Your task to perform on an android device: delete the emails in spam in the gmail app Image 0: 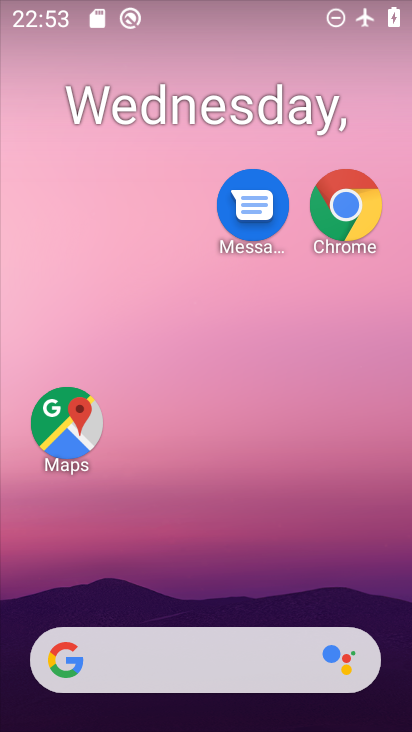
Step 0: drag from (257, 587) to (273, 201)
Your task to perform on an android device: delete the emails in spam in the gmail app Image 1: 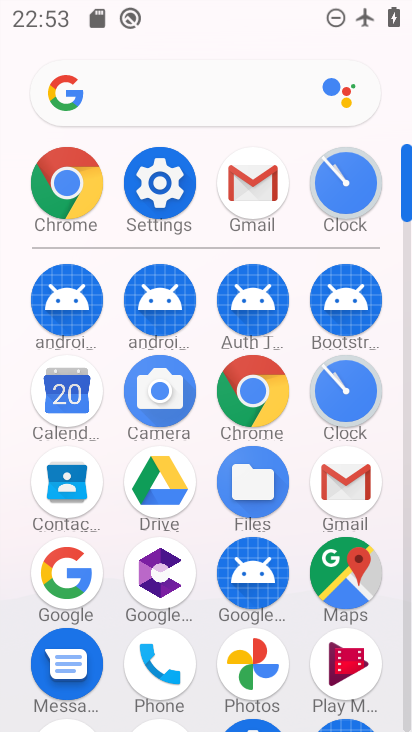
Step 1: click (335, 461)
Your task to perform on an android device: delete the emails in spam in the gmail app Image 2: 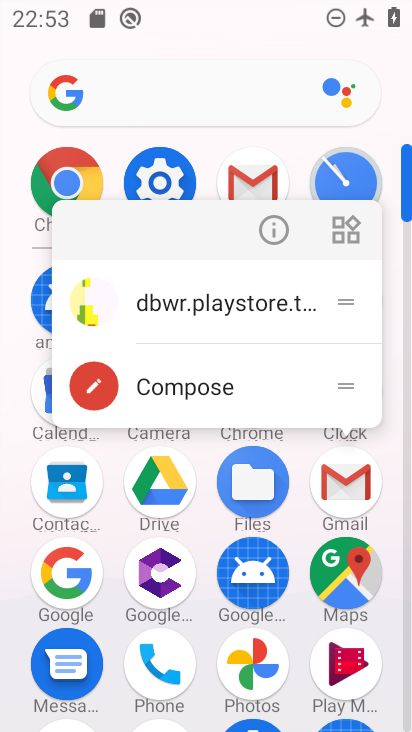
Step 2: click (269, 239)
Your task to perform on an android device: delete the emails in spam in the gmail app Image 3: 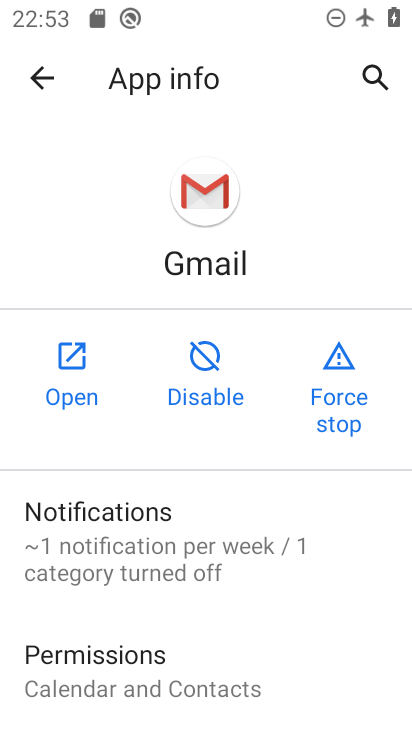
Step 3: click (68, 357)
Your task to perform on an android device: delete the emails in spam in the gmail app Image 4: 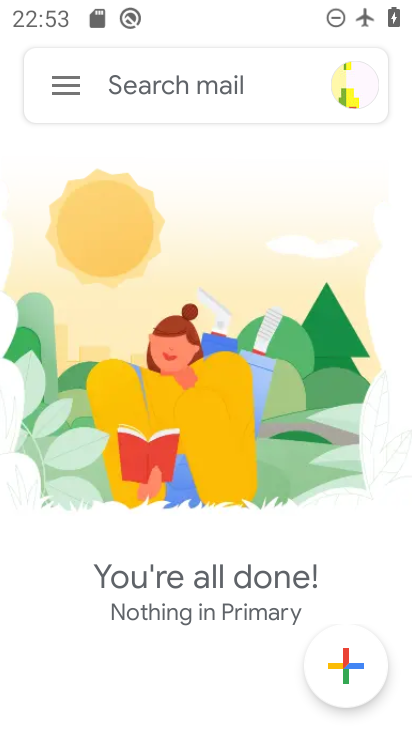
Step 4: drag from (224, 549) to (226, 401)
Your task to perform on an android device: delete the emails in spam in the gmail app Image 5: 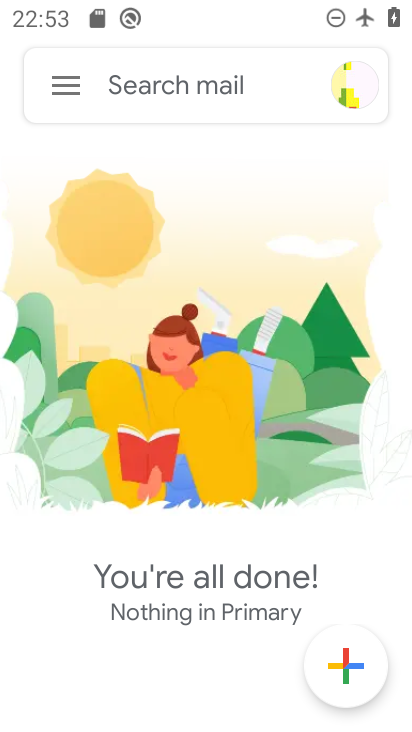
Step 5: click (42, 88)
Your task to perform on an android device: delete the emails in spam in the gmail app Image 6: 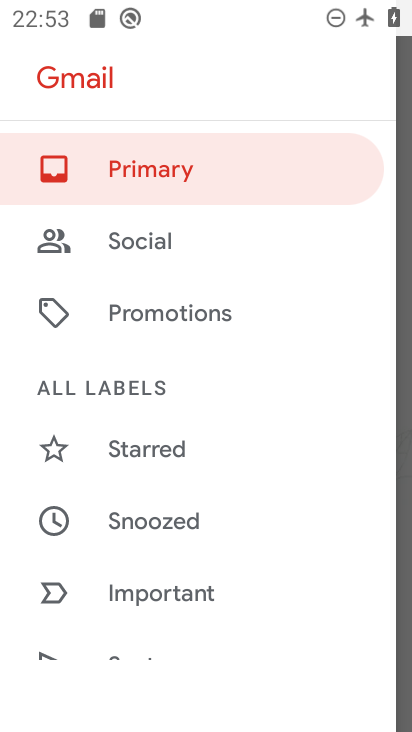
Step 6: drag from (175, 481) to (204, 296)
Your task to perform on an android device: delete the emails in spam in the gmail app Image 7: 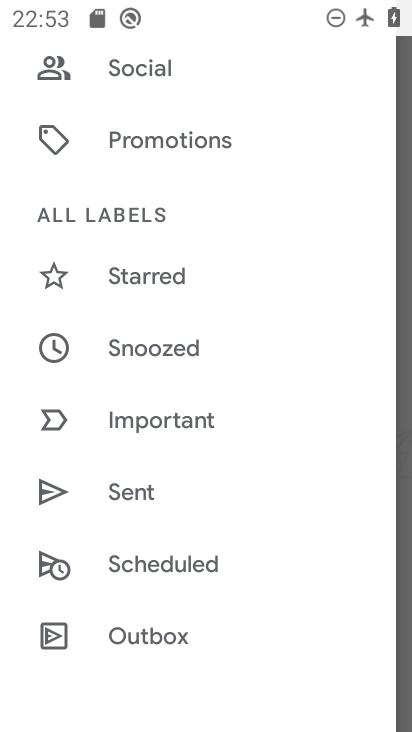
Step 7: drag from (193, 481) to (224, 214)
Your task to perform on an android device: delete the emails in spam in the gmail app Image 8: 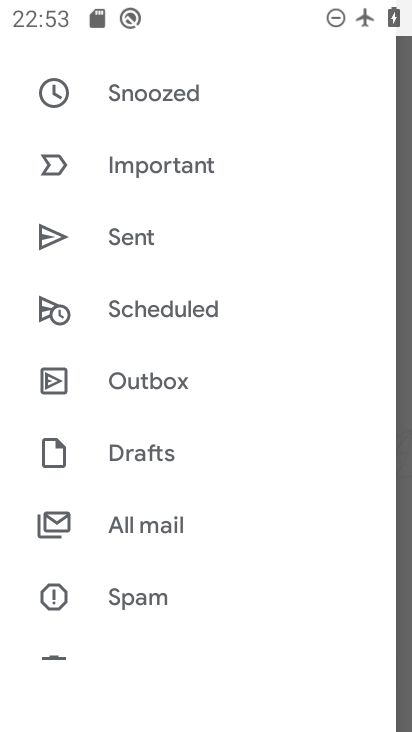
Step 8: drag from (201, 606) to (228, 294)
Your task to perform on an android device: delete the emails in spam in the gmail app Image 9: 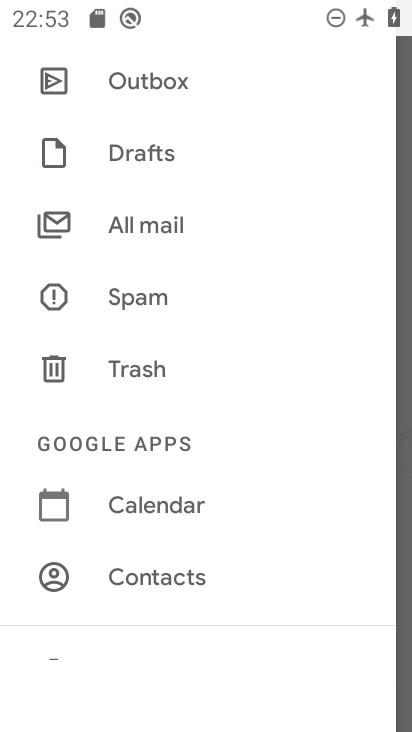
Step 9: drag from (250, 543) to (239, 393)
Your task to perform on an android device: delete the emails in spam in the gmail app Image 10: 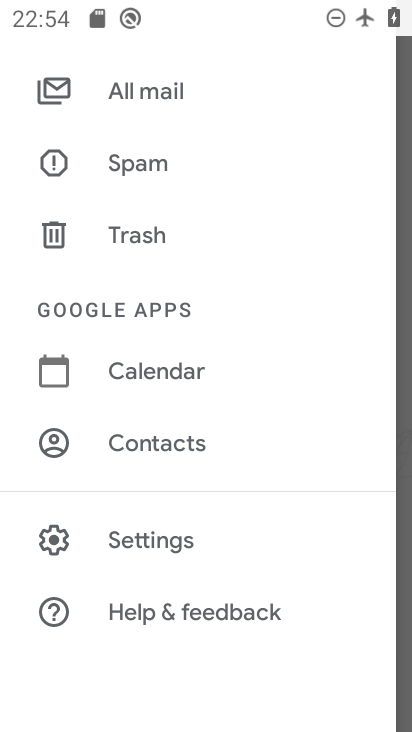
Step 10: click (186, 183)
Your task to perform on an android device: delete the emails in spam in the gmail app Image 11: 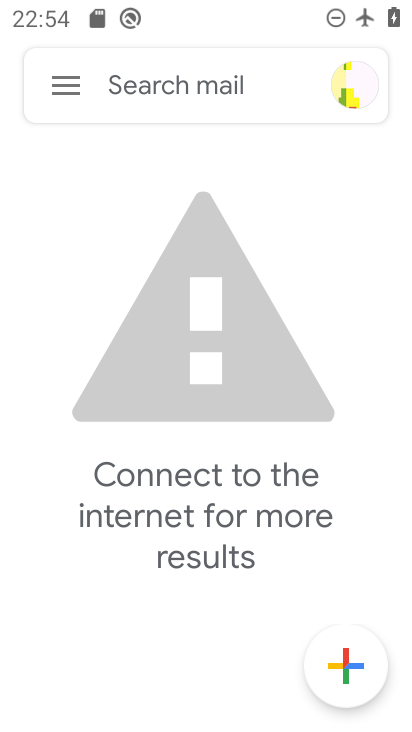
Step 11: task complete